Your task to perform on an android device: Add "apple airpods pro" to the cart on ebay.com Image 0: 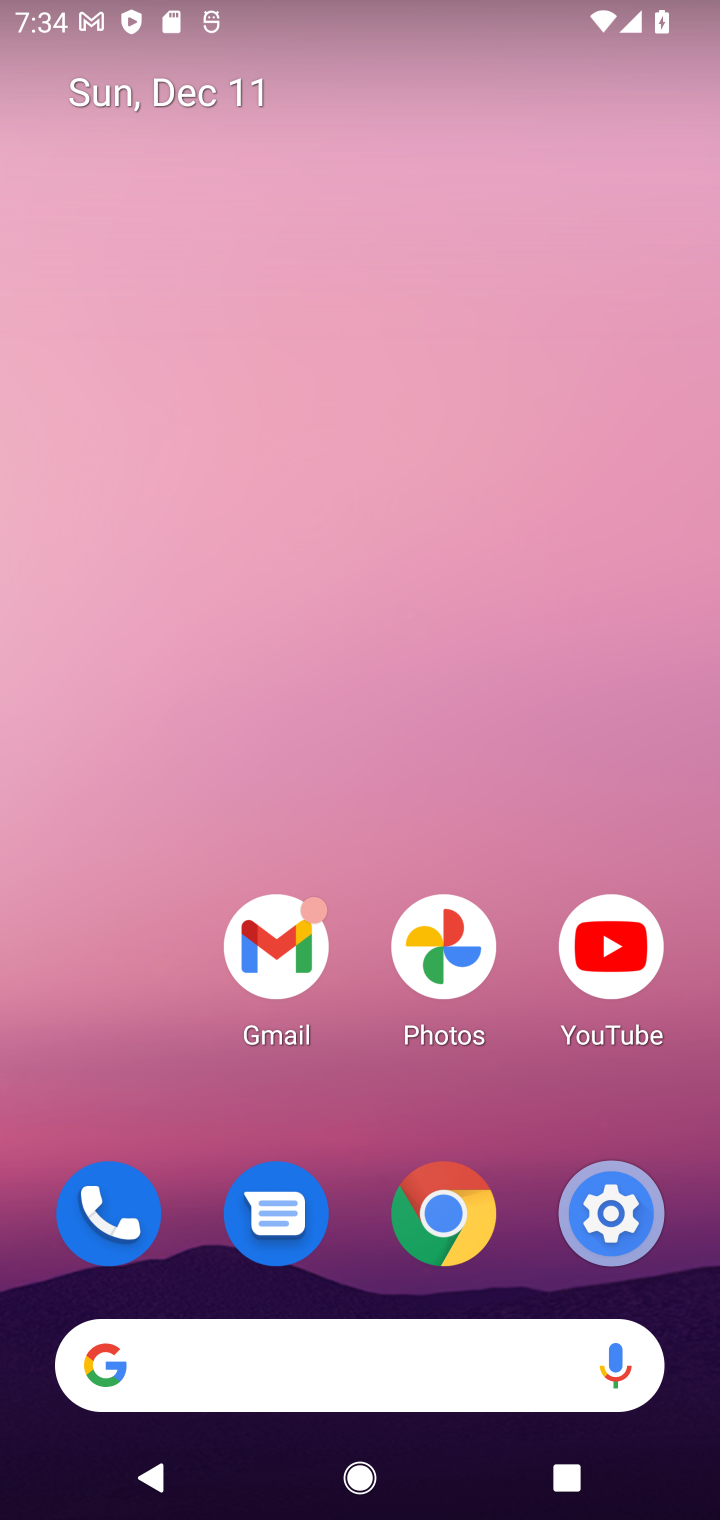
Step 0: click (362, 1399)
Your task to perform on an android device: Add "apple airpods pro" to the cart on ebay.com Image 1: 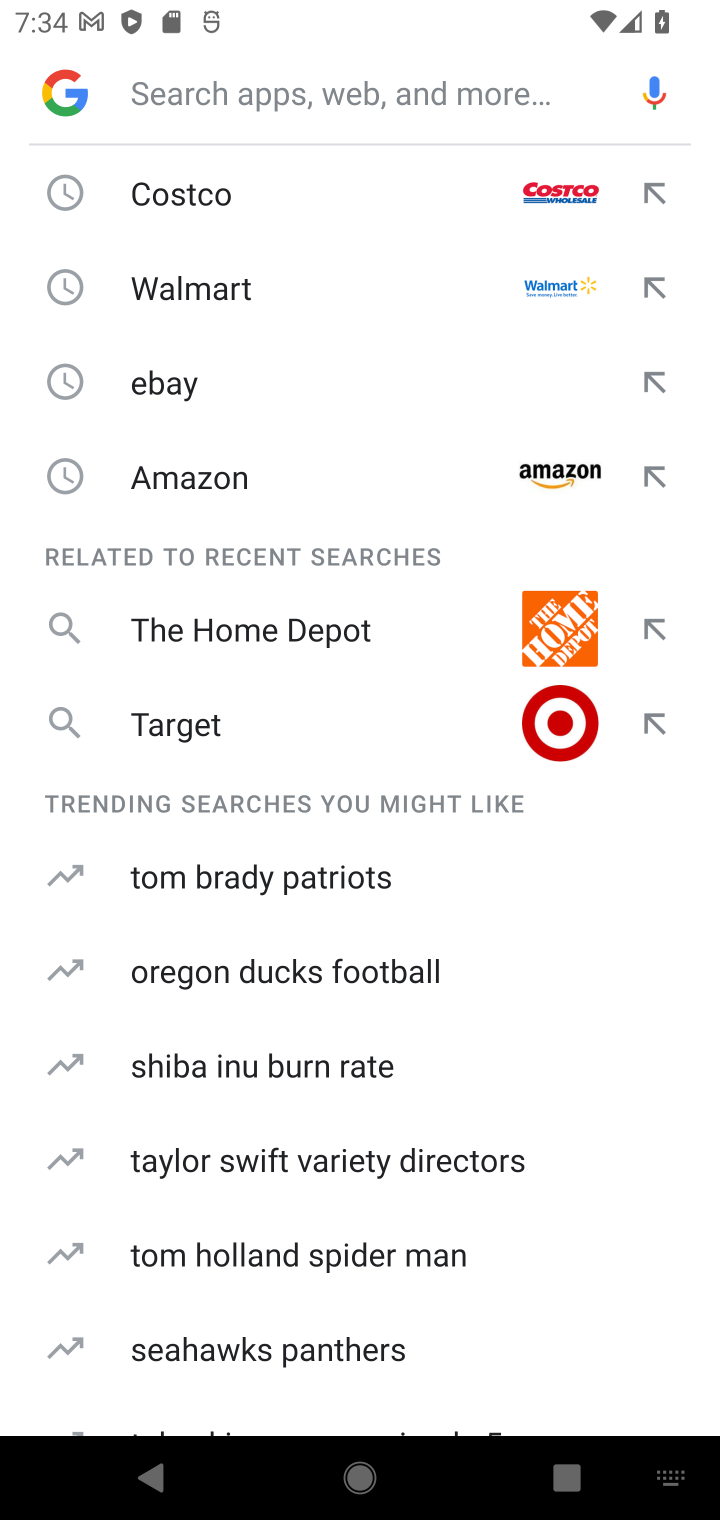
Step 1: type "ebay"
Your task to perform on an android device: Add "apple airpods pro" to the cart on ebay.com Image 2: 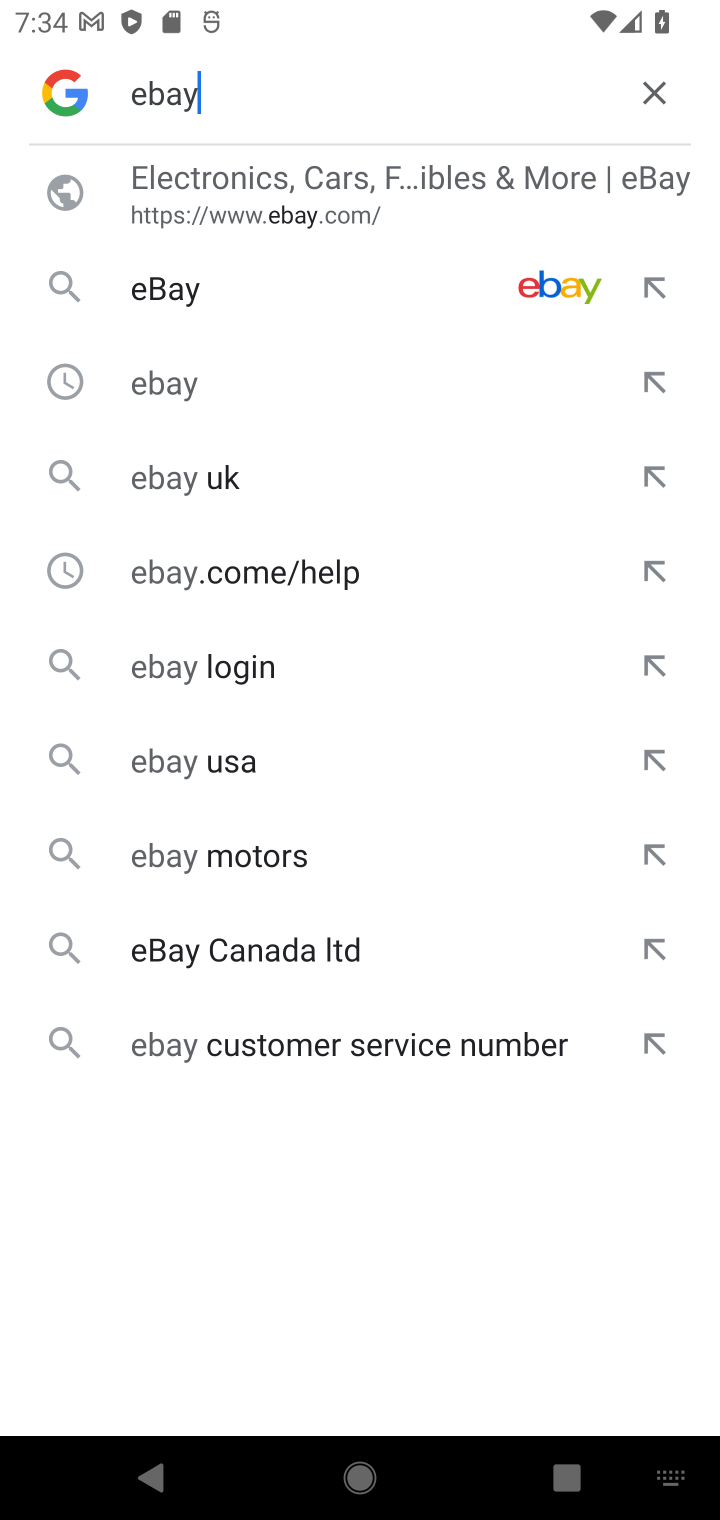
Step 2: click (270, 296)
Your task to perform on an android device: Add "apple airpods pro" to the cart on ebay.com Image 3: 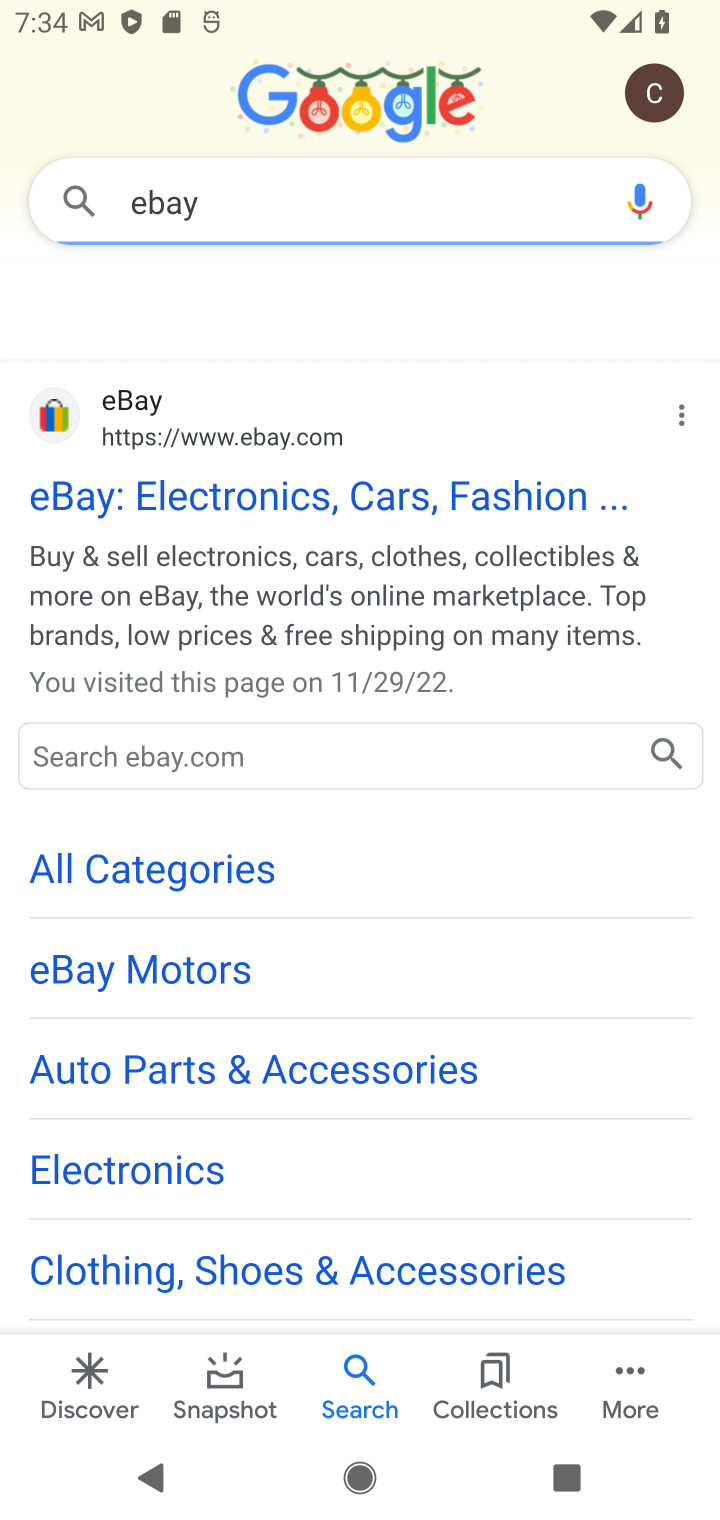
Step 3: click (268, 500)
Your task to perform on an android device: Add "apple airpods pro" to the cart on ebay.com Image 4: 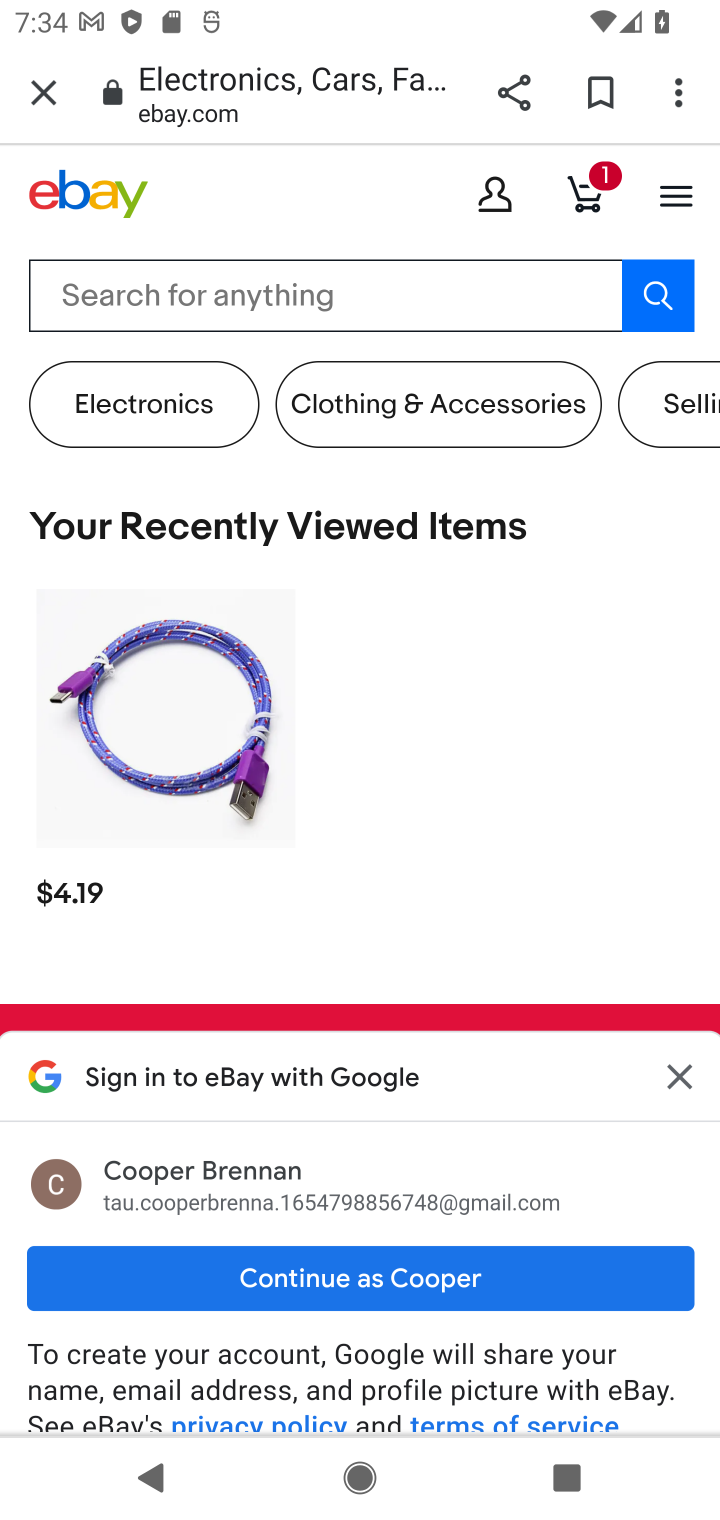
Step 4: click (351, 288)
Your task to perform on an android device: Add "apple airpods pro" to the cart on ebay.com Image 5: 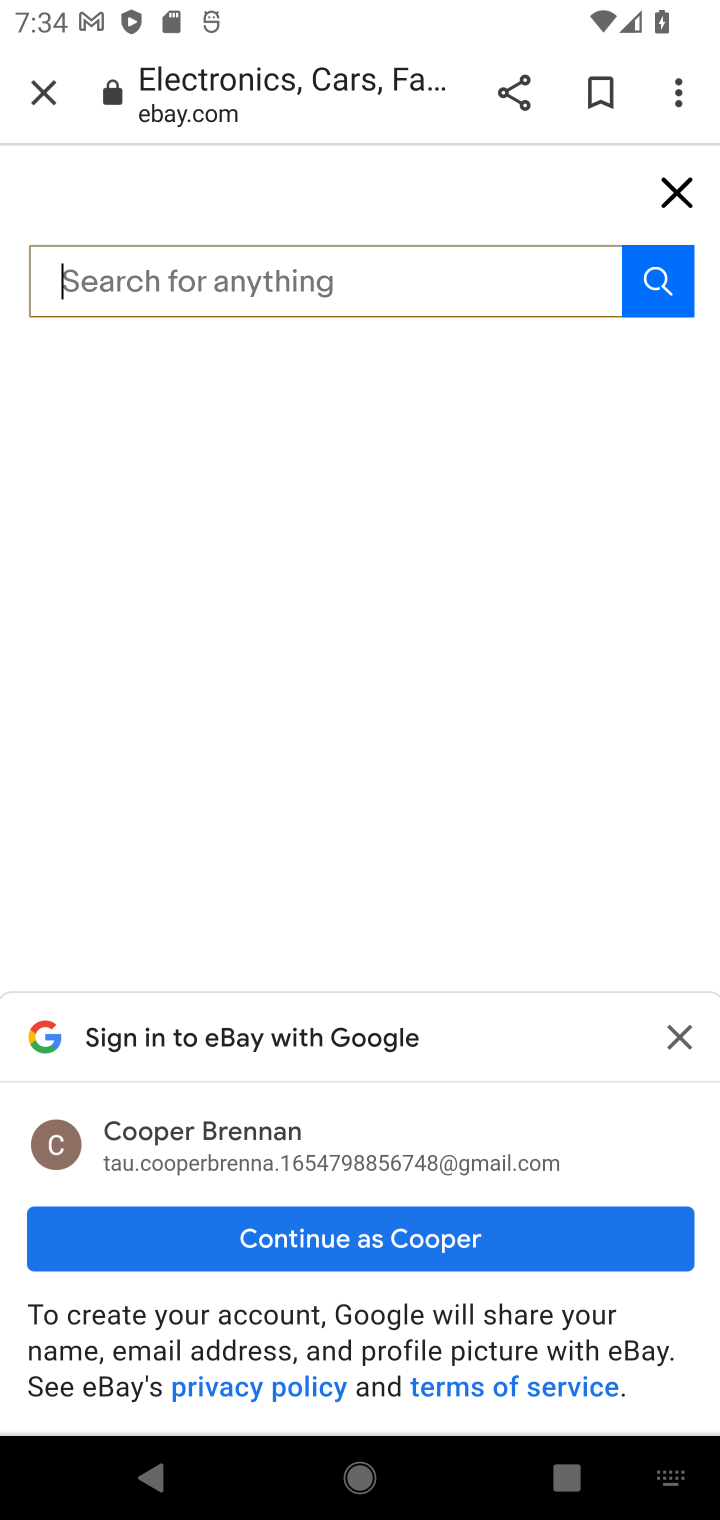
Step 5: type "apple airpod"
Your task to perform on an android device: Add "apple airpods pro" to the cart on ebay.com Image 6: 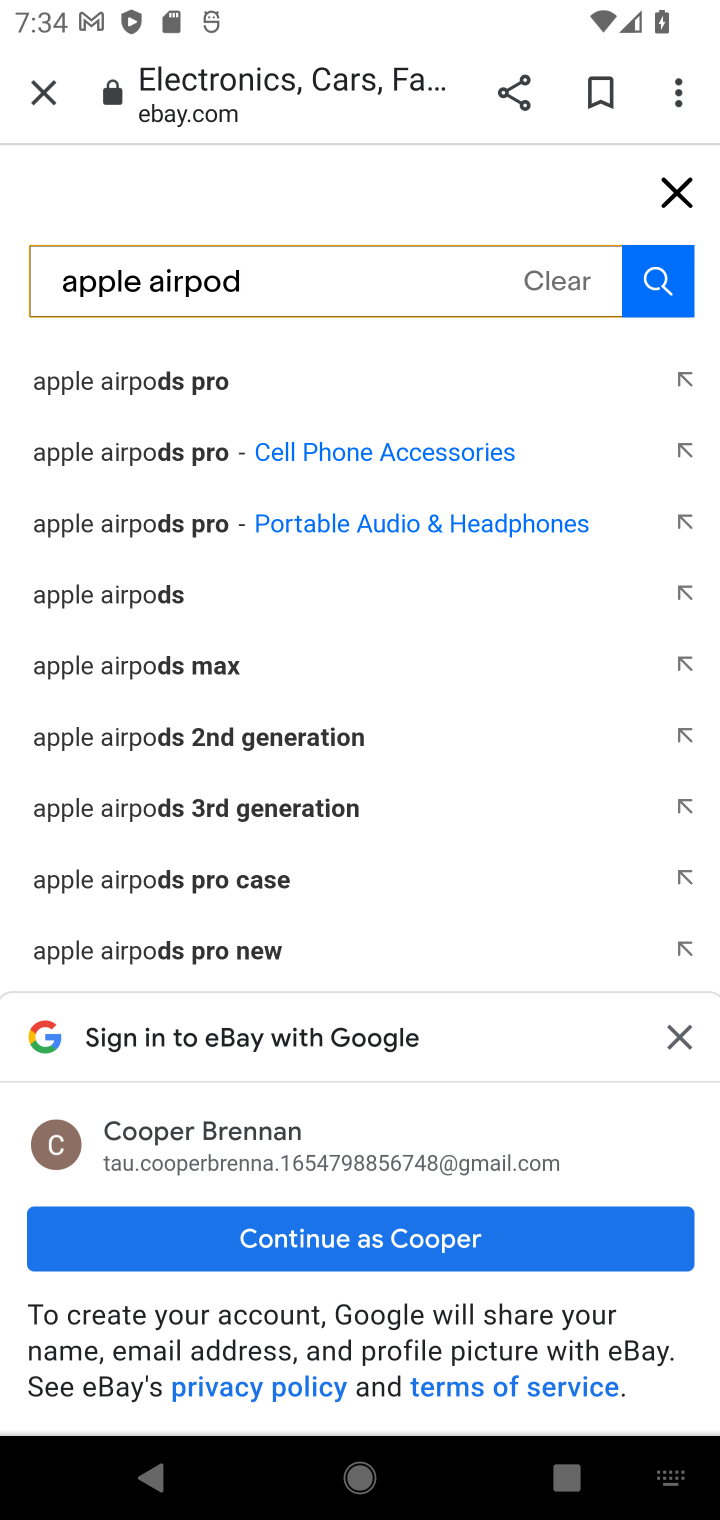
Step 6: click (349, 384)
Your task to perform on an android device: Add "apple airpods pro" to the cart on ebay.com Image 7: 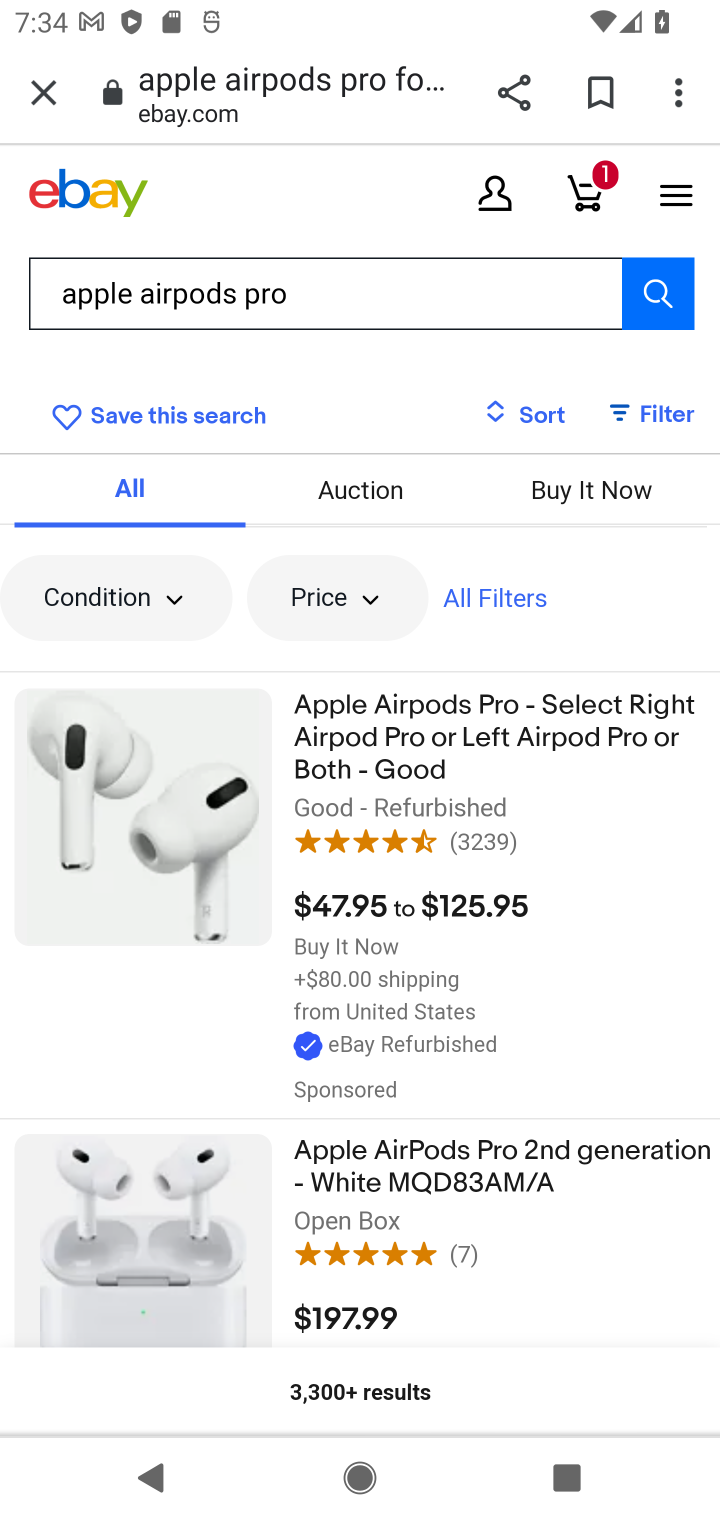
Step 7: click (374, 755)
Your task to perform on an android device: Add "apple airpods pro" to the cart on ebay.com Image 8: 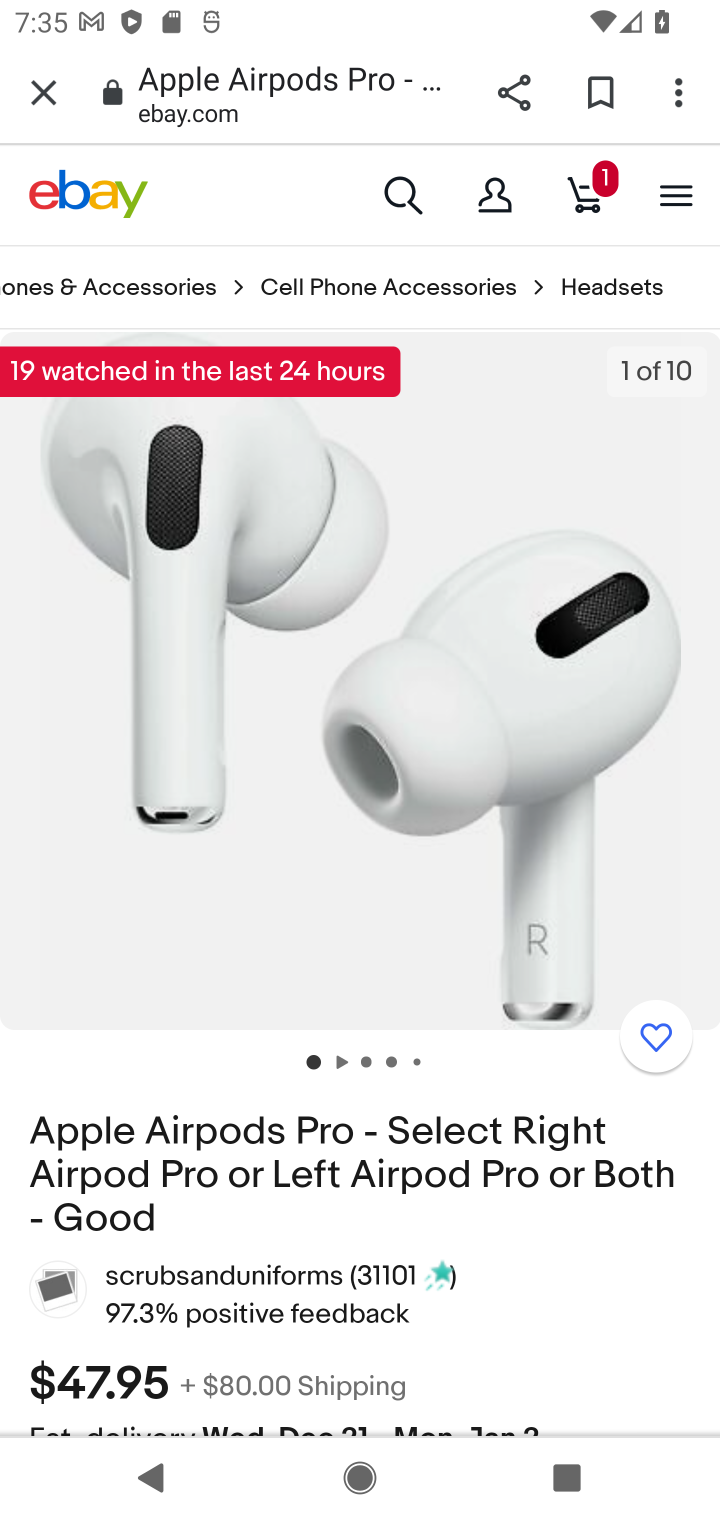
Step 8: drag from (233, 1296) to (337, 311)
Your task to perform on an android device: Add "apple airpods pro" to the cart on ebay.com Image 9: 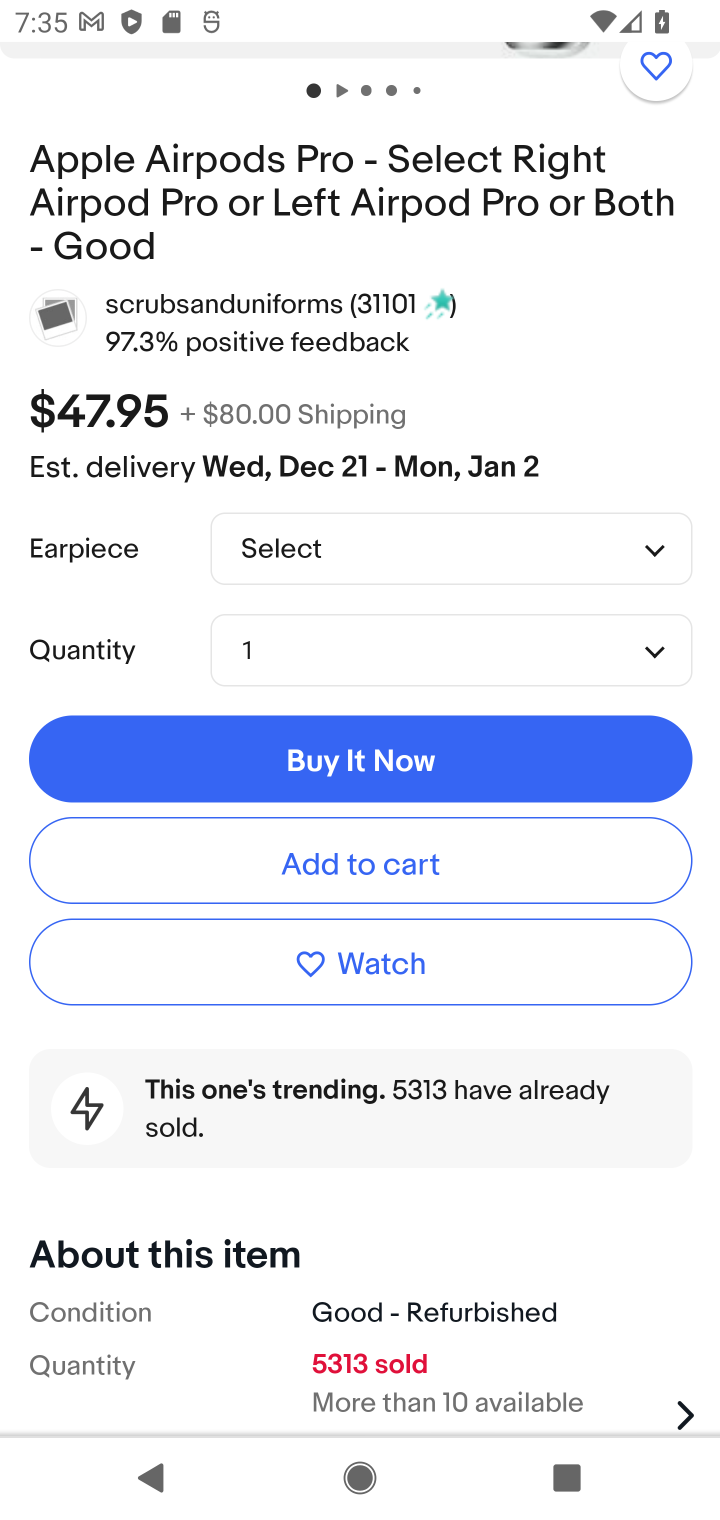
Step 9: click (408, 872)
Your task to perform on an android device: Add "apple airpods pro" to the cart on ebay.com Image 10: 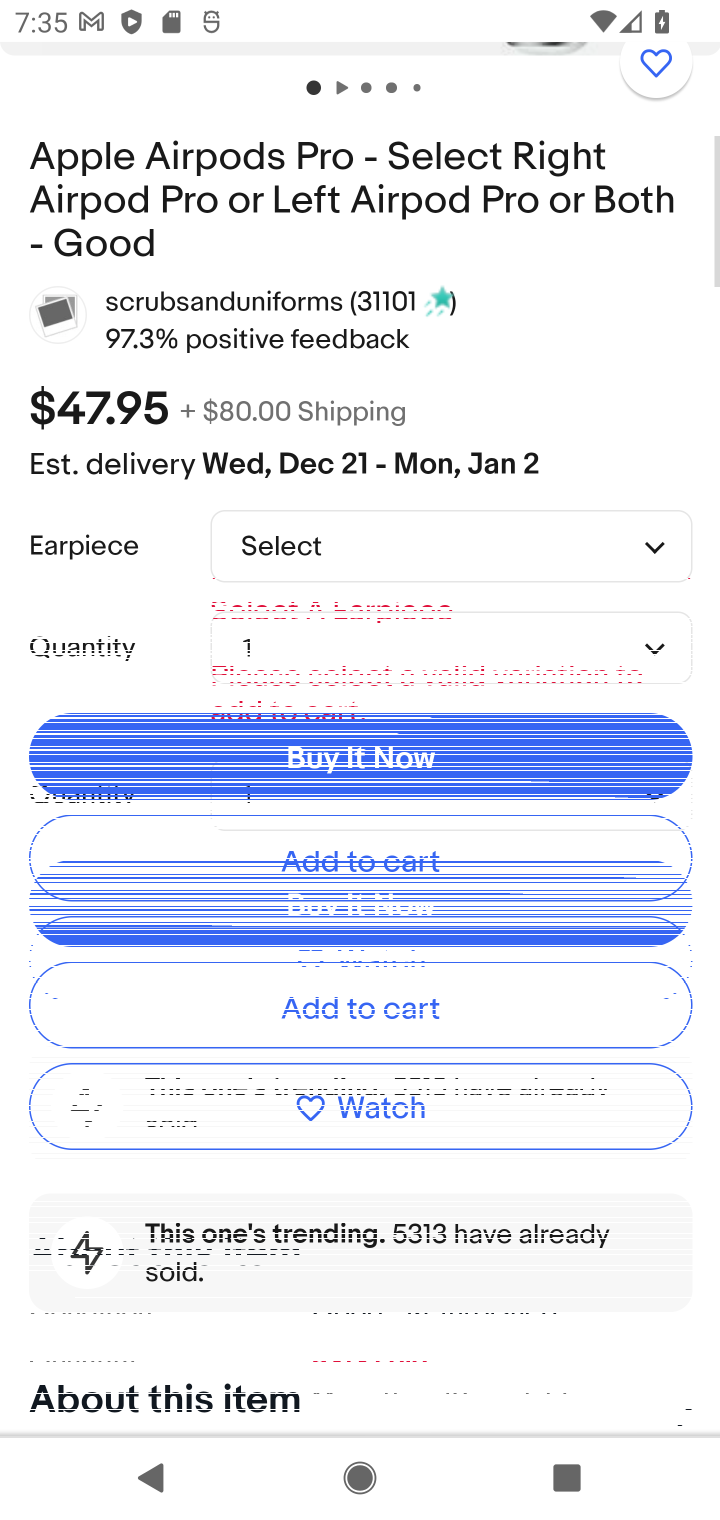
Step 10: task complete